Your task to perform on an android device: Is it going to rain today? Image 0: 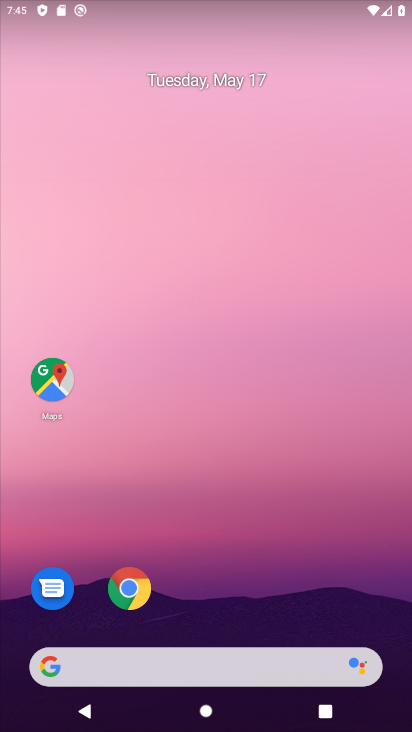
Step 0: drag from (392, 598) to (383, 313)
Your task to perform on an android device: Is it going to rain today? Image 1: 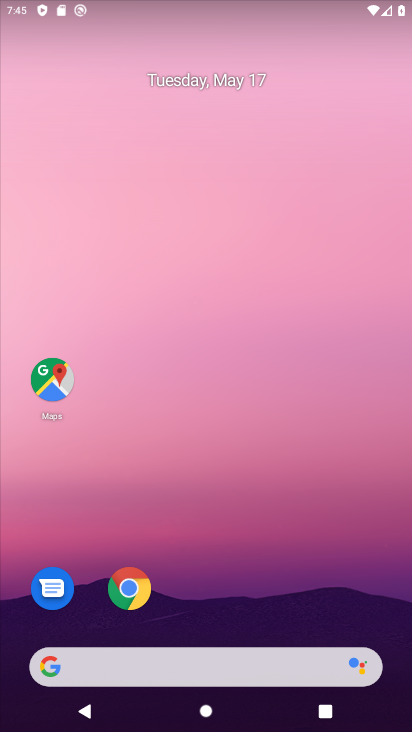
Step 1: drag from (403, 516) to (404, 338)
Your task to perform on an android device: Is it going to rain today? Image 2: 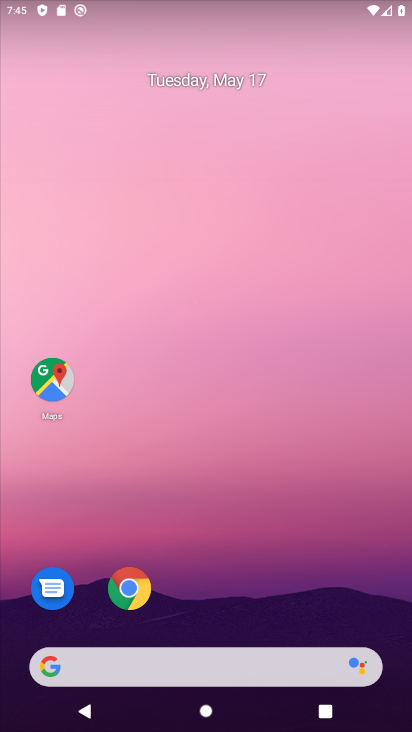
Step 2: drag from (394, 704) to (394, 554)
Your task to perform on an android device: Is it going to rain today? Image 3: 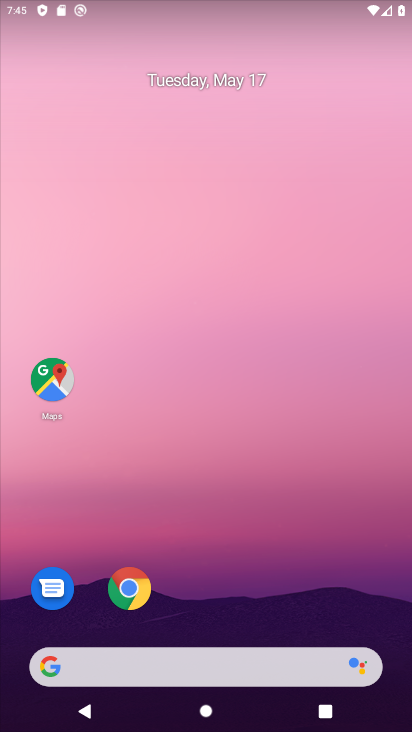
Step 3: drag from (367, 414) to (367, 201)
Your task to perform on an android device: Is it going to rain today? Image 4: 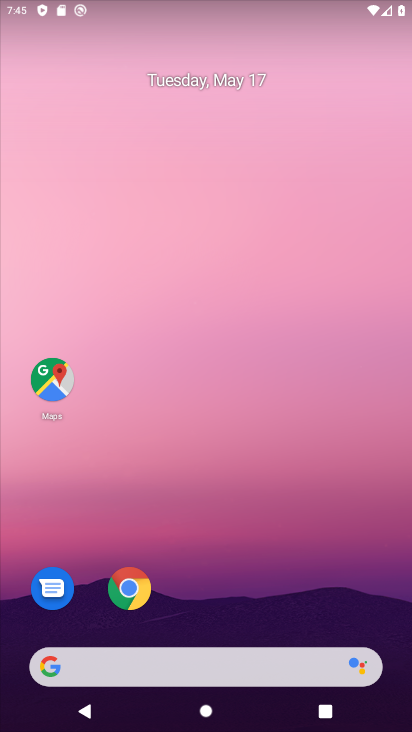
Step 4: drag from (402, 698) to (355, 7)
Your task to perform on an android device: Is it going to rain today? Image 5: 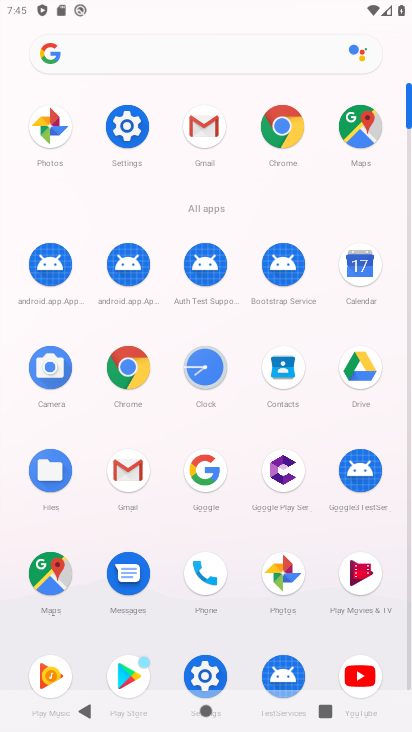
Step 5: click (207, 479)
Your task to perform on an android device: Is it going to rain today? Image 6: 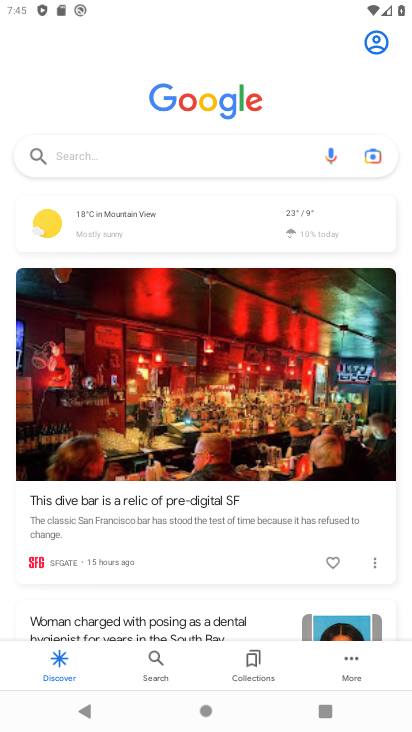
Step 6: click (296, 217)
Your task to perform on an android device: Is it going to rain today? Image 7: 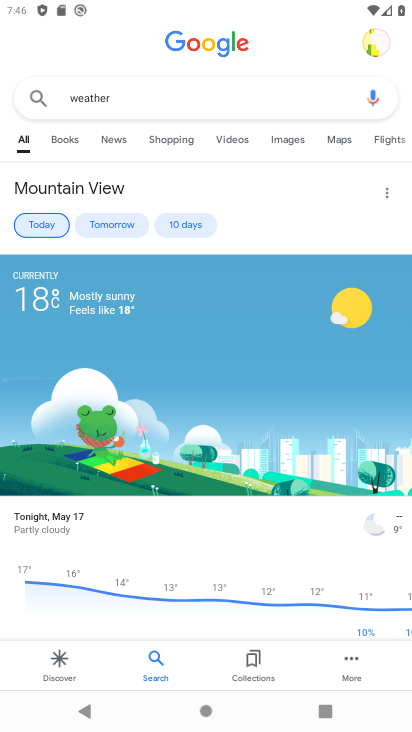
Step 7: click (393, 527)
Your task to perform on an android device: Is it going to rain today? Image 8: 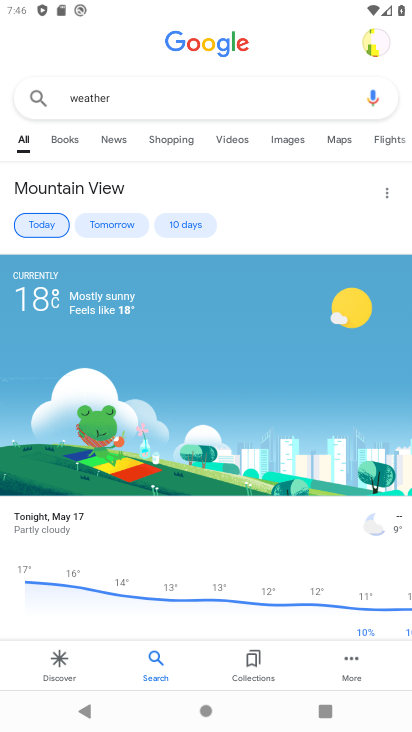
Step 8: click (87, 94)
Your task to perform on an android device: Is it going to rain today? Image 9: 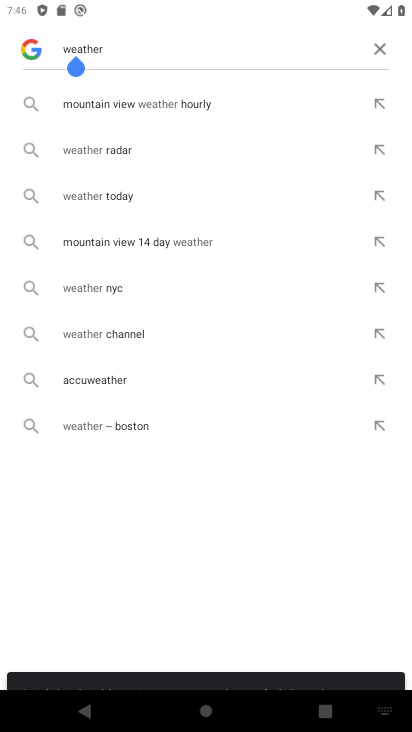
Step 9: click (96, 195)
Your task to perform on an android device: Is it going to rain today? Image 10: 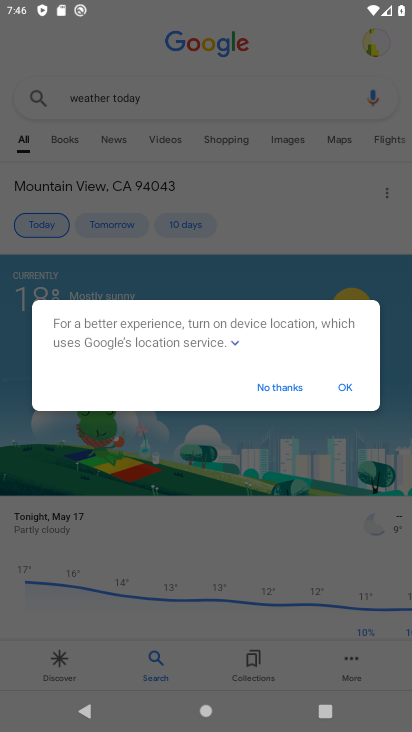
Step 10: click (341, 384)
Your task to perform on an android device: Is it going to rain today? Image 11: 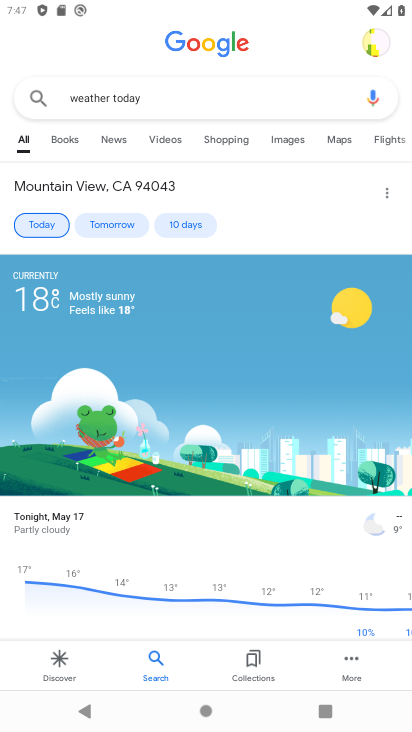
Step 11: task complete